Your task to perform on an android device: When is my next appointment? Image 0: 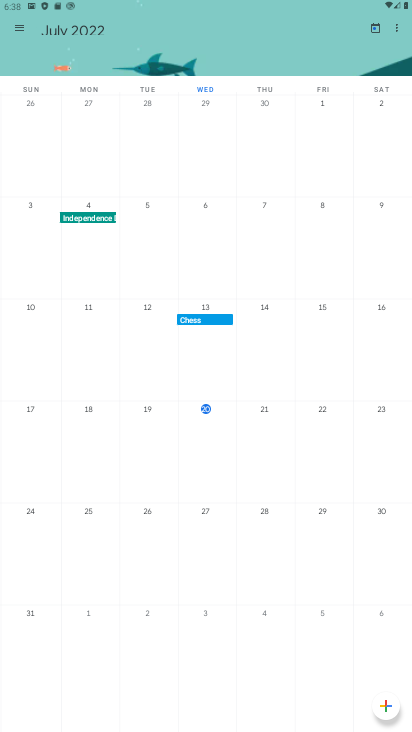
Step 0: press home button
Your task to perform on an android device: When is my next appointment? Image 1: 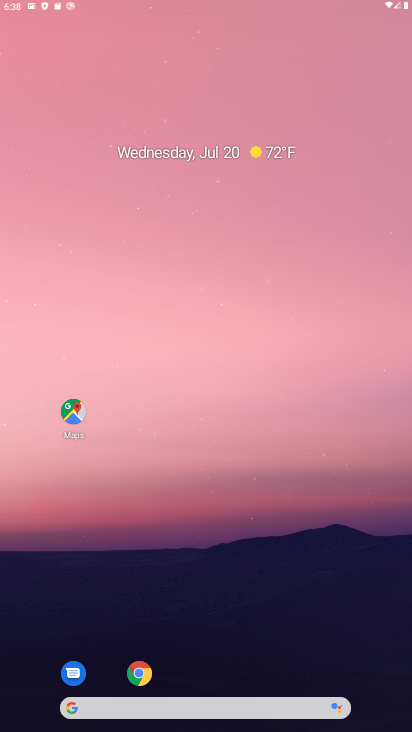
Step 1: drag from (318, 310) to (284, 38)
Your task to perform on an android device: When is my next appointment? Image 2: 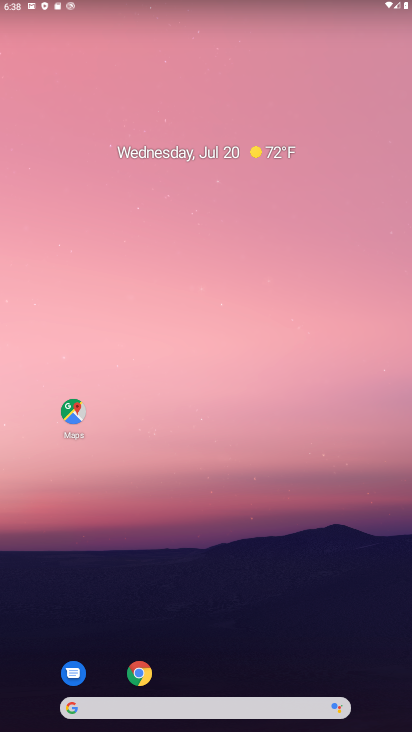
Step 2: drag from (375, 620) to (302, 0)
Your task to perform on an android device: When is my next appointment? Image 3: 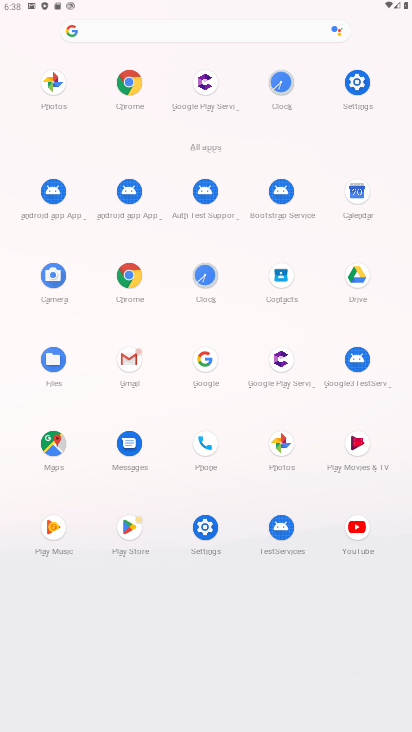
Step 3: click (361, 187)
Your task to perform on an android device: When is my next appointment? Image 4: 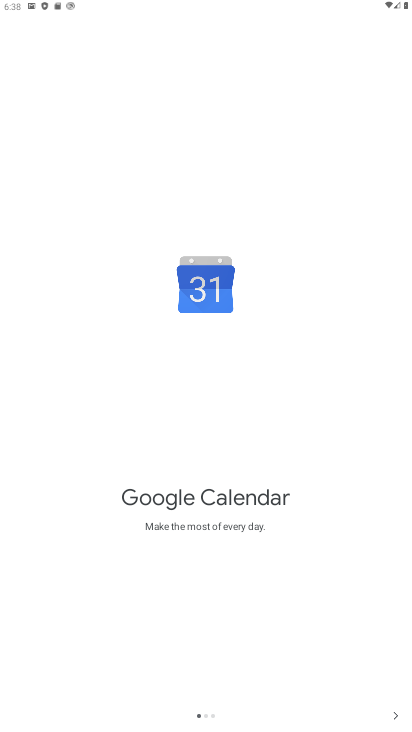
Step 4: click (394, 721)
Your task to perform on an android device: When is my next appointment? Image 5: 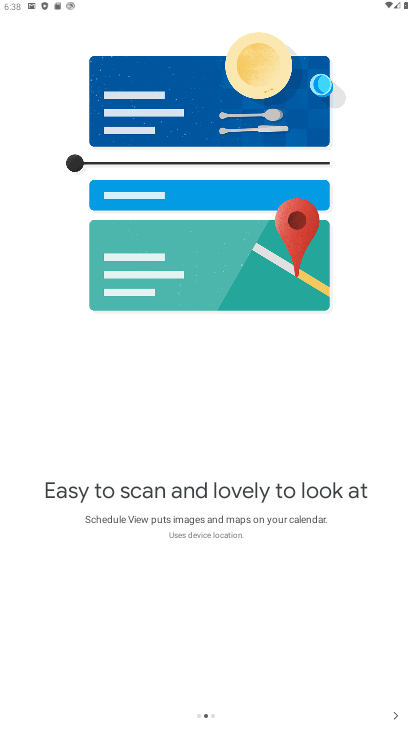
Step 5: click (394, 721)
Your task to perform on an android device: When is my next appointment? Image 6: 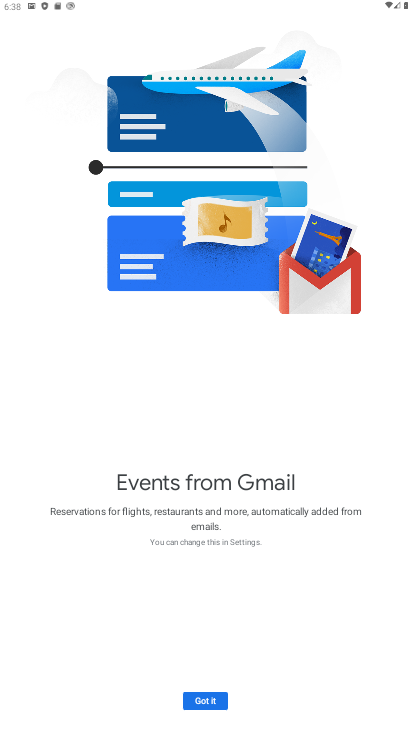
Step 6: click (193, 701)
Your task to perform on an android device: When is my next appointment? Image 7: 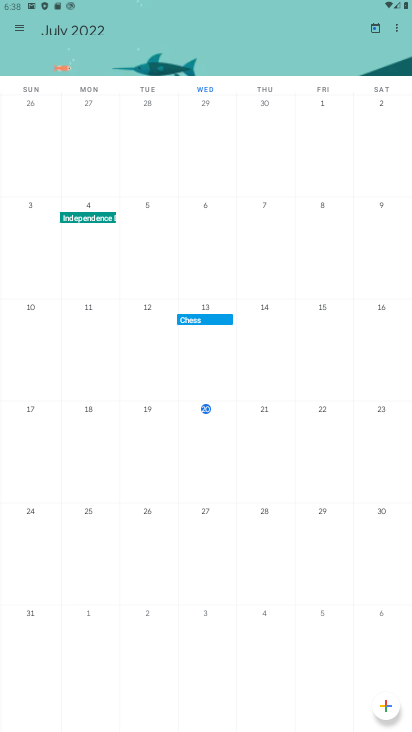
Step 7: task complete